Your task to perform on an android device: find photos in the google photos app Image 0: 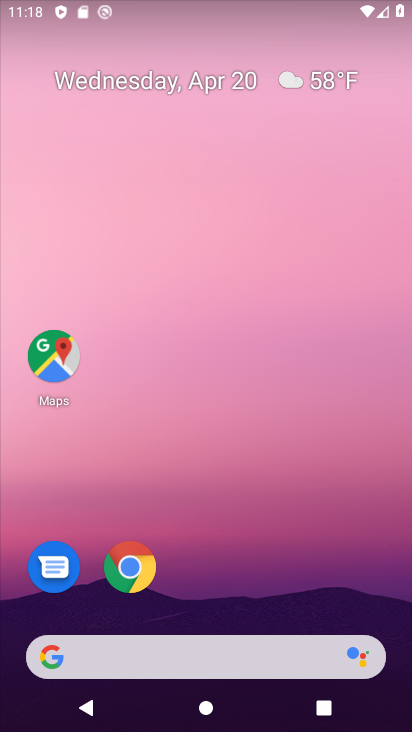
Step 0: drag from (368, 590) to (264, 81)
Your task to perform on an android device: find photos in the google photos app Image 1: 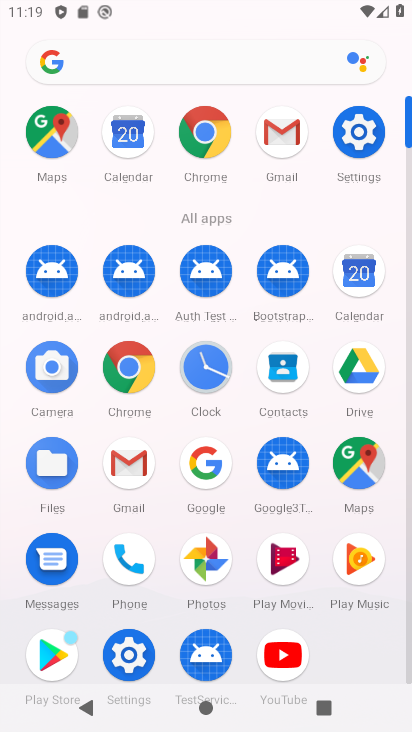
Step 1: click (216, 551)
Your task to perform on an android device: find photos in the google photos app Image 2: 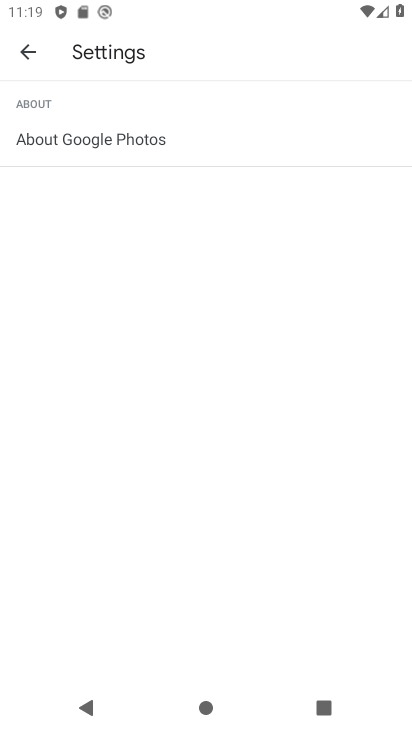
Step 2: press back button
Your task to perform on an android device: find photos in the google photos app Image 3: 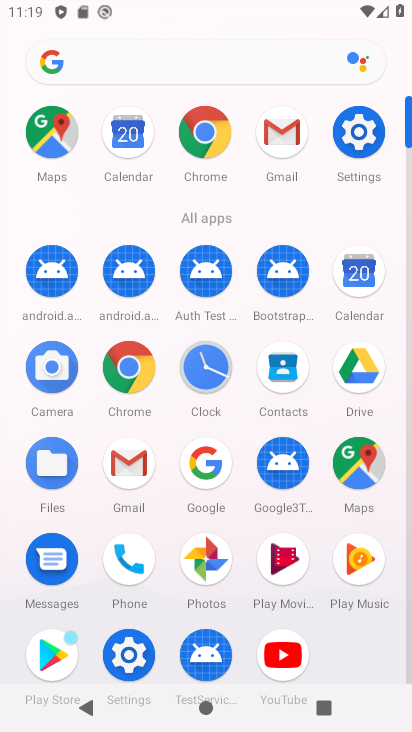
Step 3: click (213, 561)
Your task to perform on an android device: find photos in the google photos app Image 4: 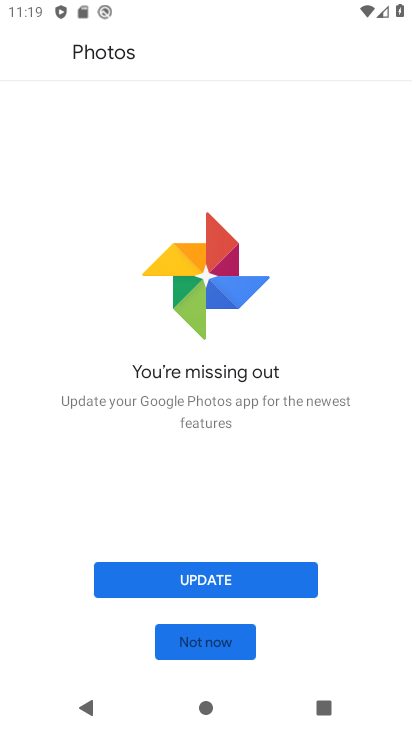
Step 4: click (184, 643)
Your task to perform on an android device: find photos in the google photos app Image 5: 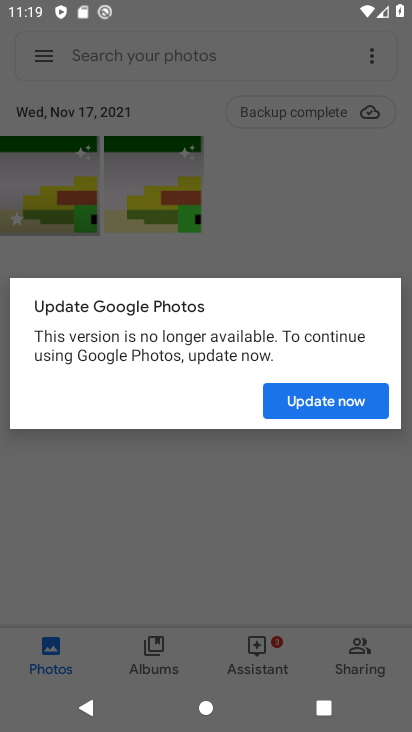
Step 5: click (349, 407)
Your task to perform on an android device: find photos in the google photos app Image 6: 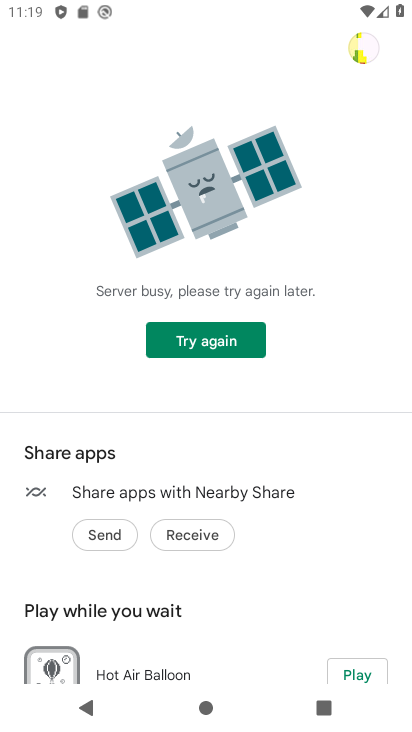
Step 6: task complete